Your task to perform on an android device: Search for Italian restaurants on Maps Image 0: 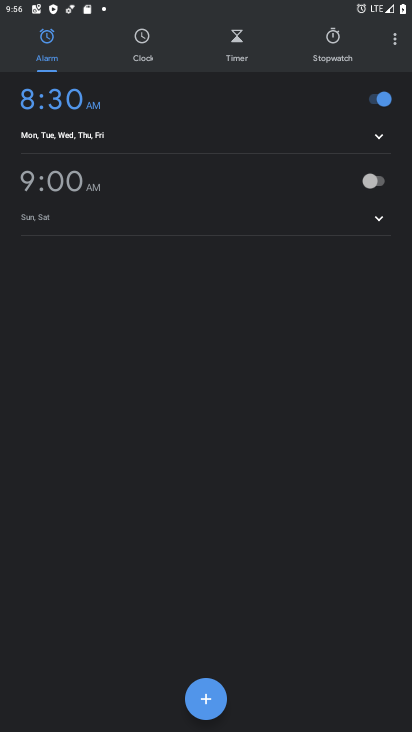
Step 0: press home button
Your task to perform on an android device: Search for Italian restaurants on Maps Image 1: 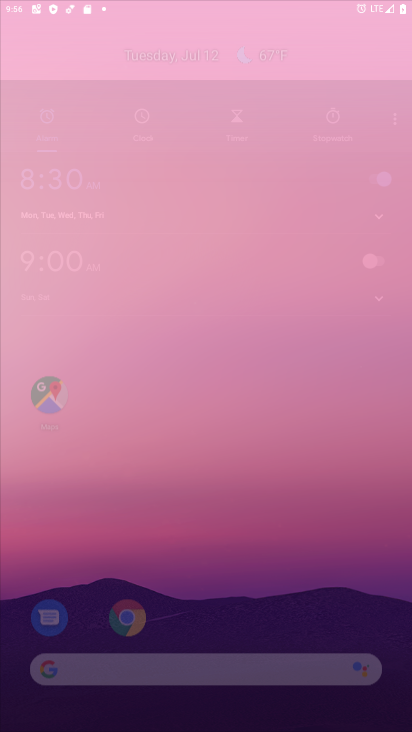
Step 1: drag from (251, 543) to (352, 126)
Your task to perform on an android device: Search for Italian restaurants on Maps Image 2: 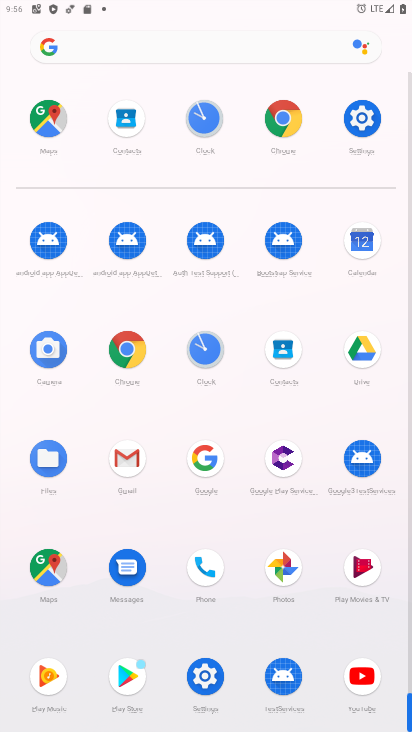
Step 2: click (55, 554)
Your task to perform on an android device: Search for Italian restaurants on Maps Image 3: 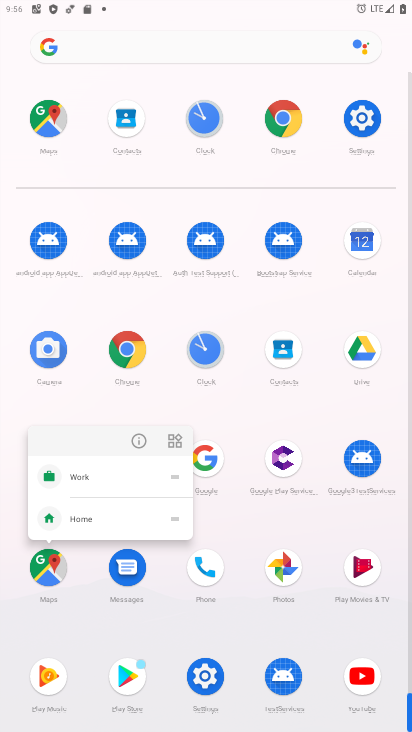
Step 3: click (138, 439)
Your task to perform on an android device: Search for Italian restaurants on Maps Image 4: 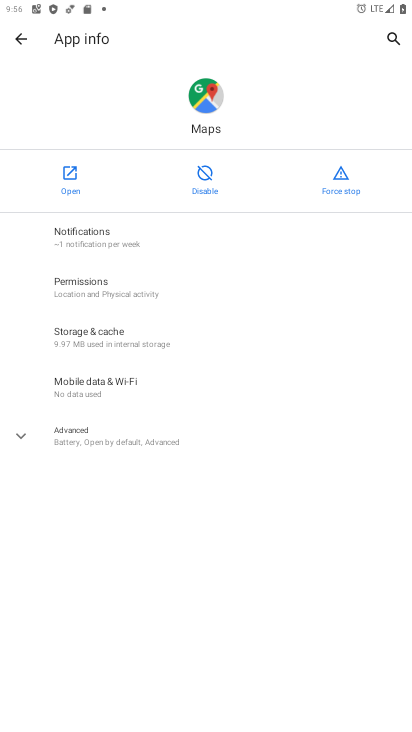
Step 4: click (62, 180)
Your task to perform on an android device: Search for Italian restaurants on Maps Image 5: 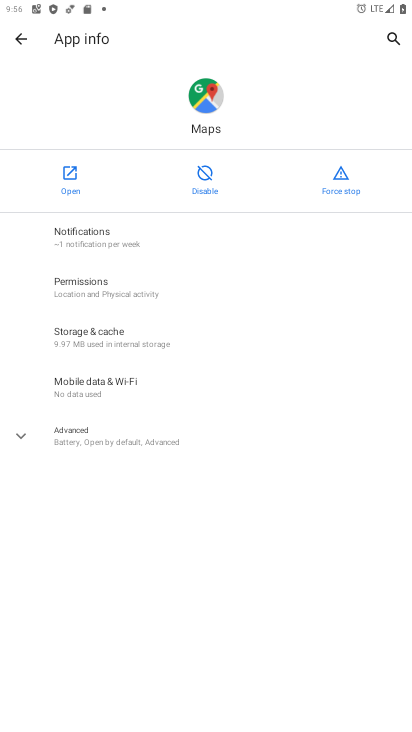
Step 5: click (62, 180)
Your task to perform on an android device: Search for Italian restaurants on Maps Image 6: 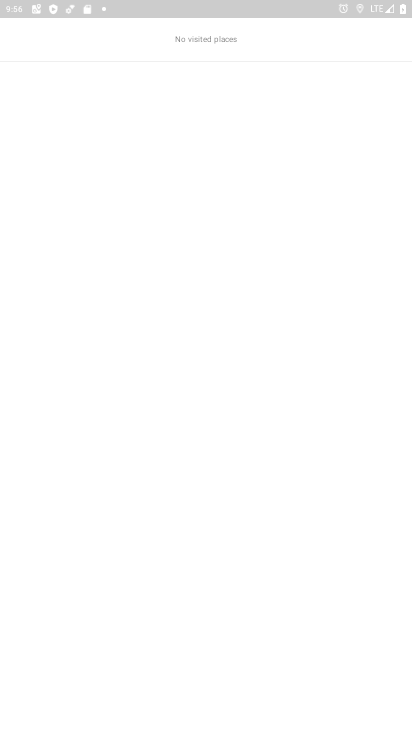
Step 6: drag from (174, 189) to (257, 714)
Your task to perform on an android device: Search for Italian restaurants on Maps Image 7: 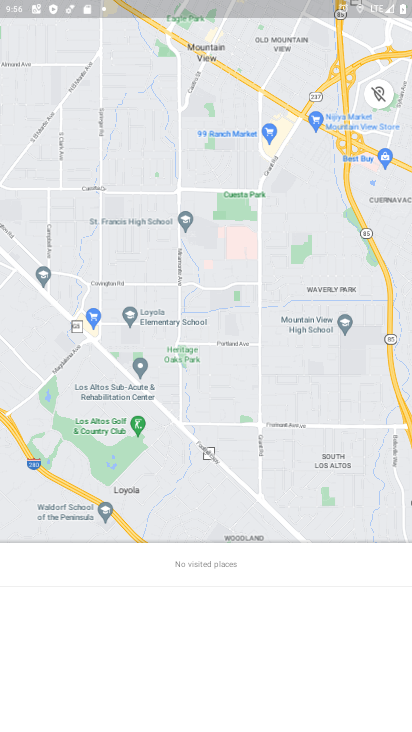
Step 7: press back button
Your task to perform on an android device: Search for Italian restaurants on Maps Image 8: 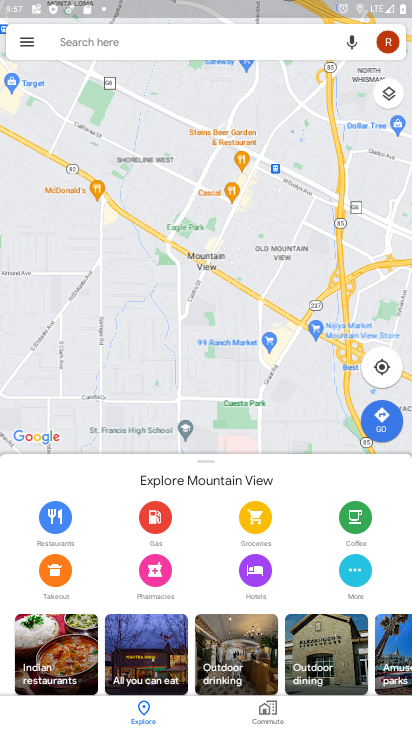
Step 8: click (22, 41)
Your task to perform on an android device: Search for Italian restaurants on Maps Image 9: 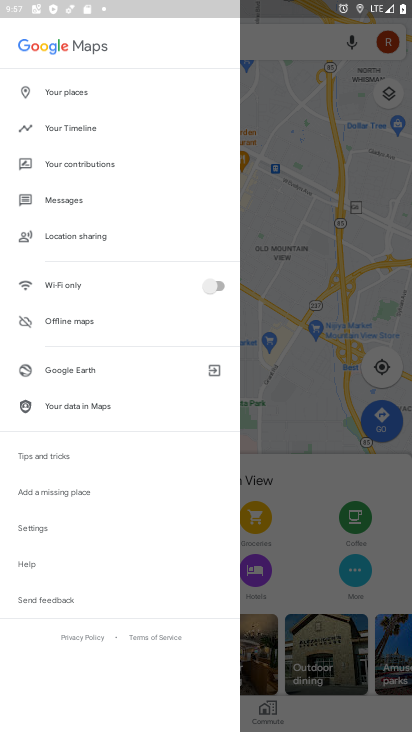
Step 9: drag from (119, 581) to (212, 164)
Your task to perform on an android device: Search for Italian restaurants on Maps Image 10: 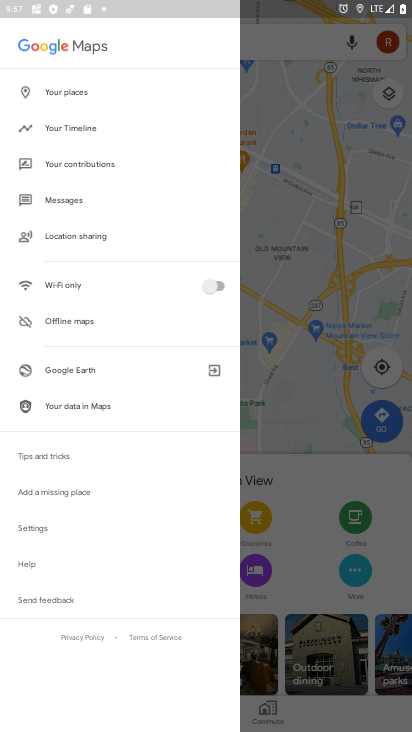
Step 10: drag from (114, 149) to (168, 554)
Your task to perform on an android device: Search for Italian restaurants on Maps Image 11: 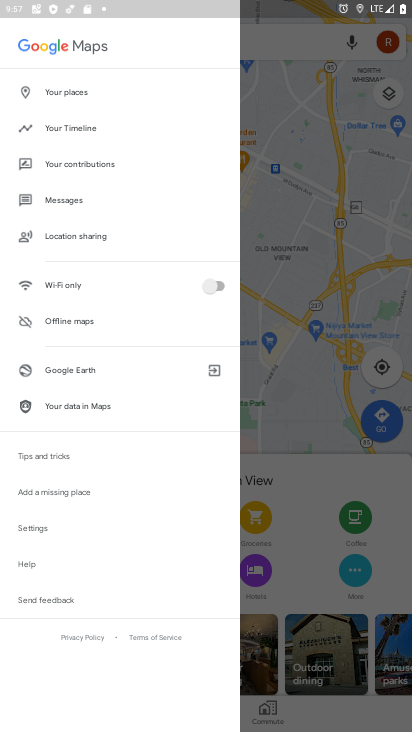
Step 11: click (276, 47)
Your task to perform on an android device: Search for Italian restaurants on Maps Image 12: 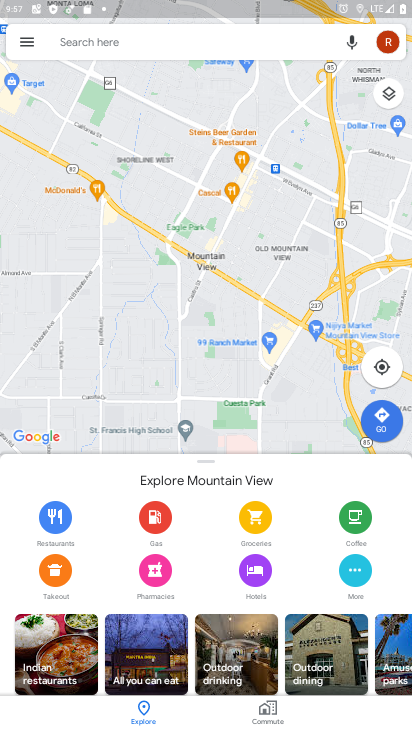
Step 12: click (231, 35)
Your task to perform on an android device: Search for Italian restaurants on Maps Image 13: 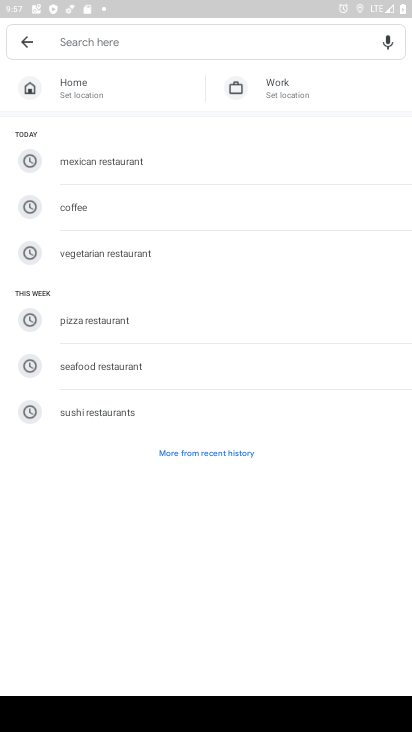
Step 13: type "italian restaurants"
Your task to perform on an android device: Search for Italian restaurants on Maps Image 14: 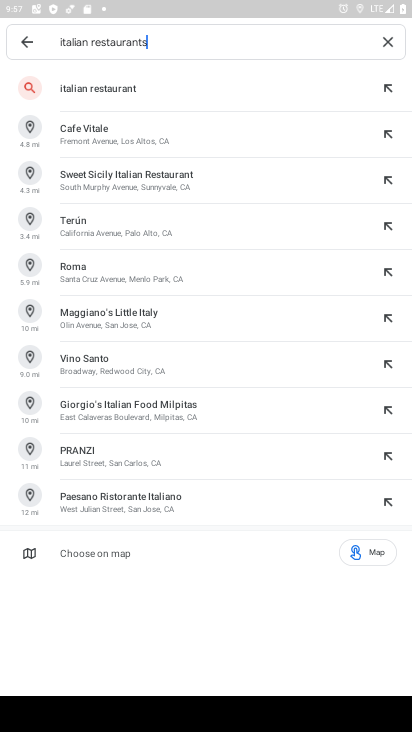
Step 14: click (96, 94)
Your task to perform on an android device: Search for Italian restaurants on Maps Image 15: 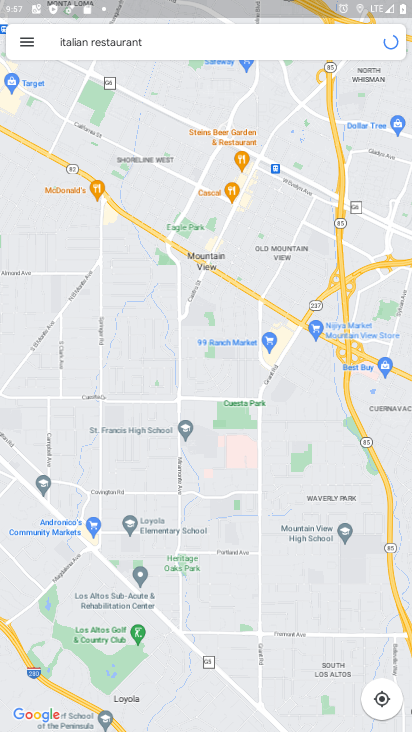
Step 15: task complete